Your task to perform on an android device: Go to network settings Image 0: 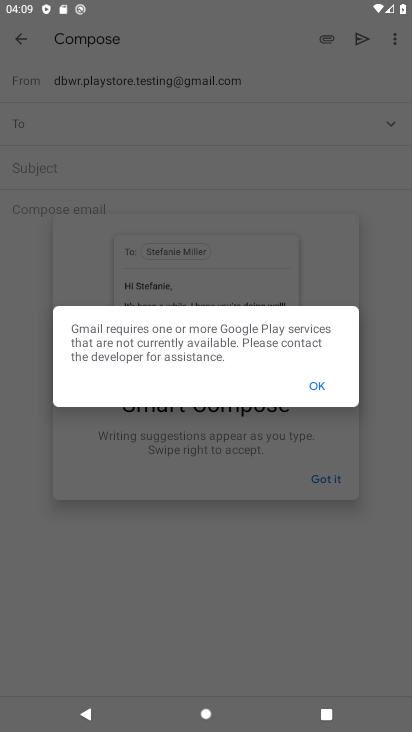
Step 0: press home button
Your task to perform on an android device: Go to network settings Image 1: 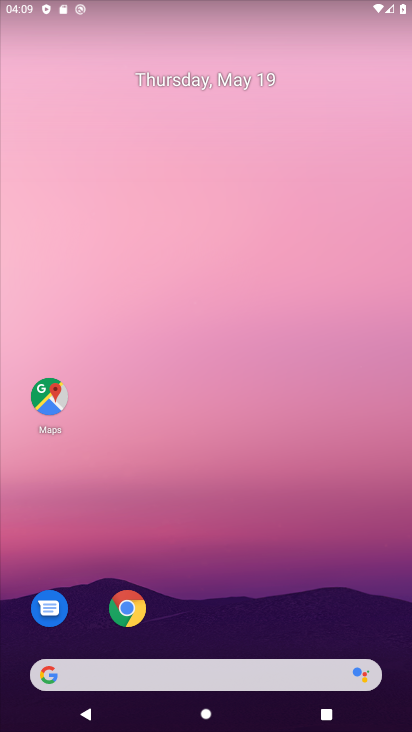
Step 1: drag from (245, 594) to (304, 251)
Your task to perform on an android device: Go to network settings Image 2: 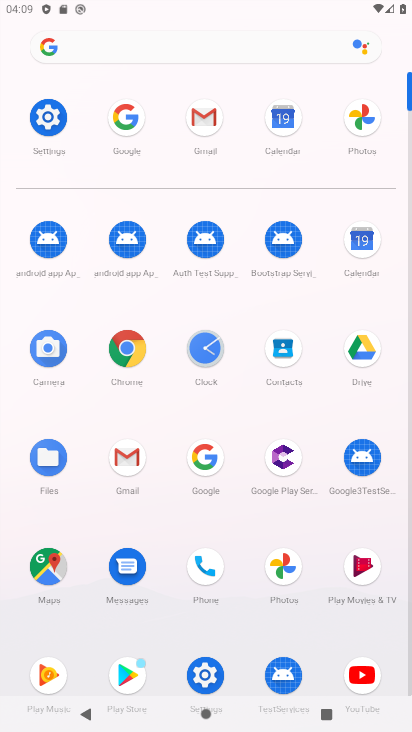
Step 2: click (49, 115)
Your task to perform on an android device: Go to network settings Image 3: 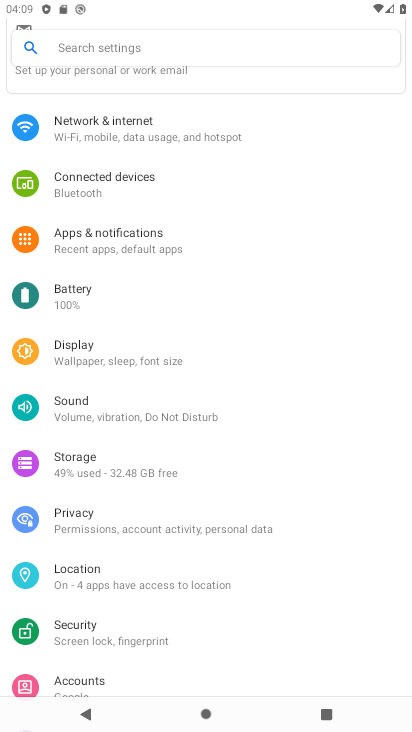
Step 3: click (120, 138)
Your task to perform on an android device: Go to network settings Image 4: 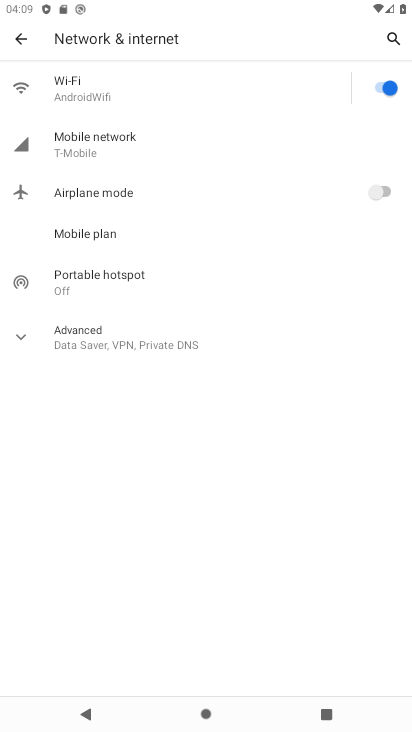
Step 4: click (80, 135)
Your task to perform on an android device: Go to network settings Image 5: 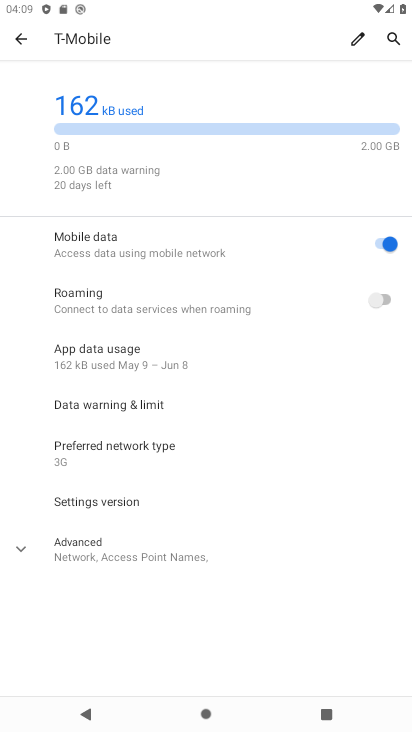
Step 5: task complete